Your task to perform on an android device: Open my contact list Image 0: 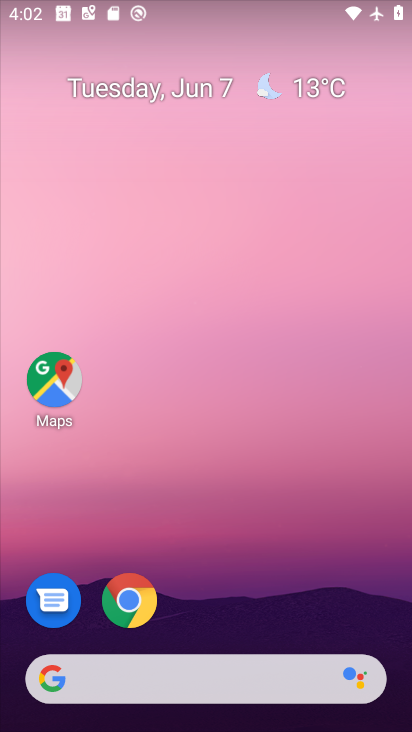
Step 0: drag from (324, 435) to (295, 148)
Your task to perform on an android device: Open my contact list Image 1: 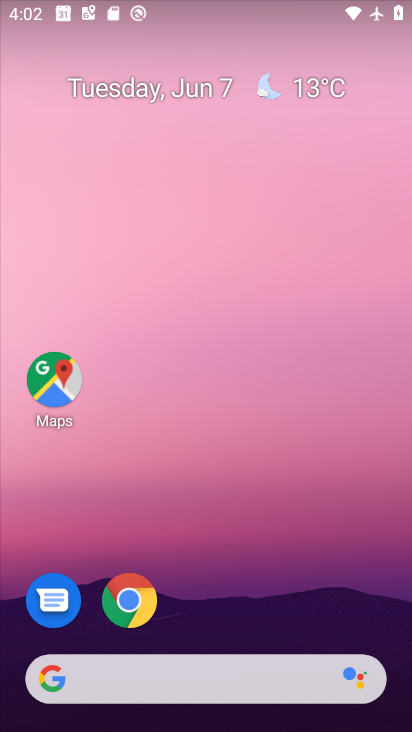
Step 1: drag from (264, 528) to (268, 56)
Your task to perform on an android device: Open my contact list Image 2: 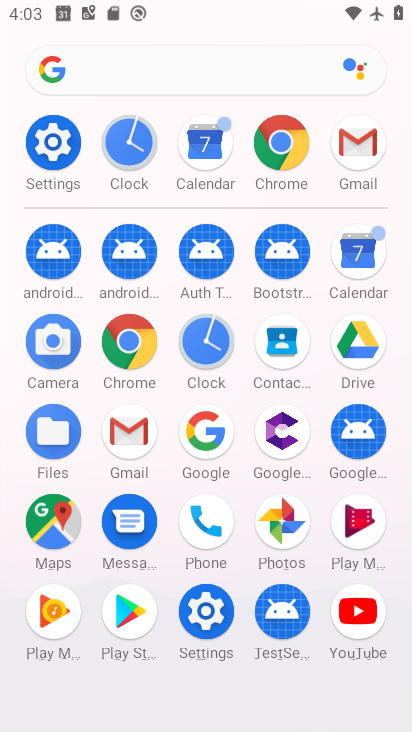
Step 2: click (291, 341)
Your task to perform on an android device: Open my contact list Image 3: 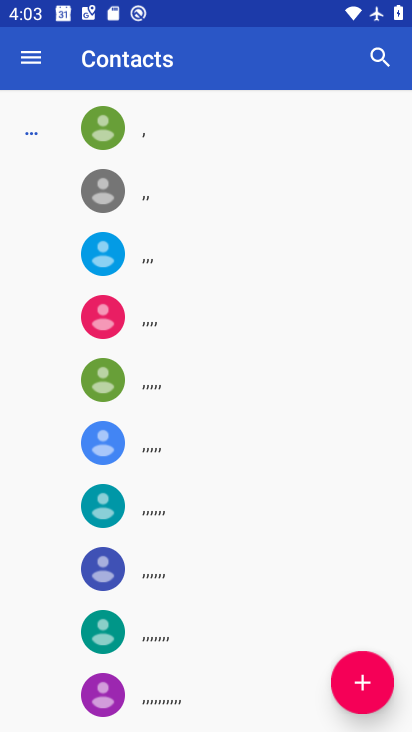
Step 3: task complete